Your task to perform on an android device: Empty the shopping cart on costco. Search for bose soundlink mini on costco, select the first entry, and add it to the cart. Image 0: 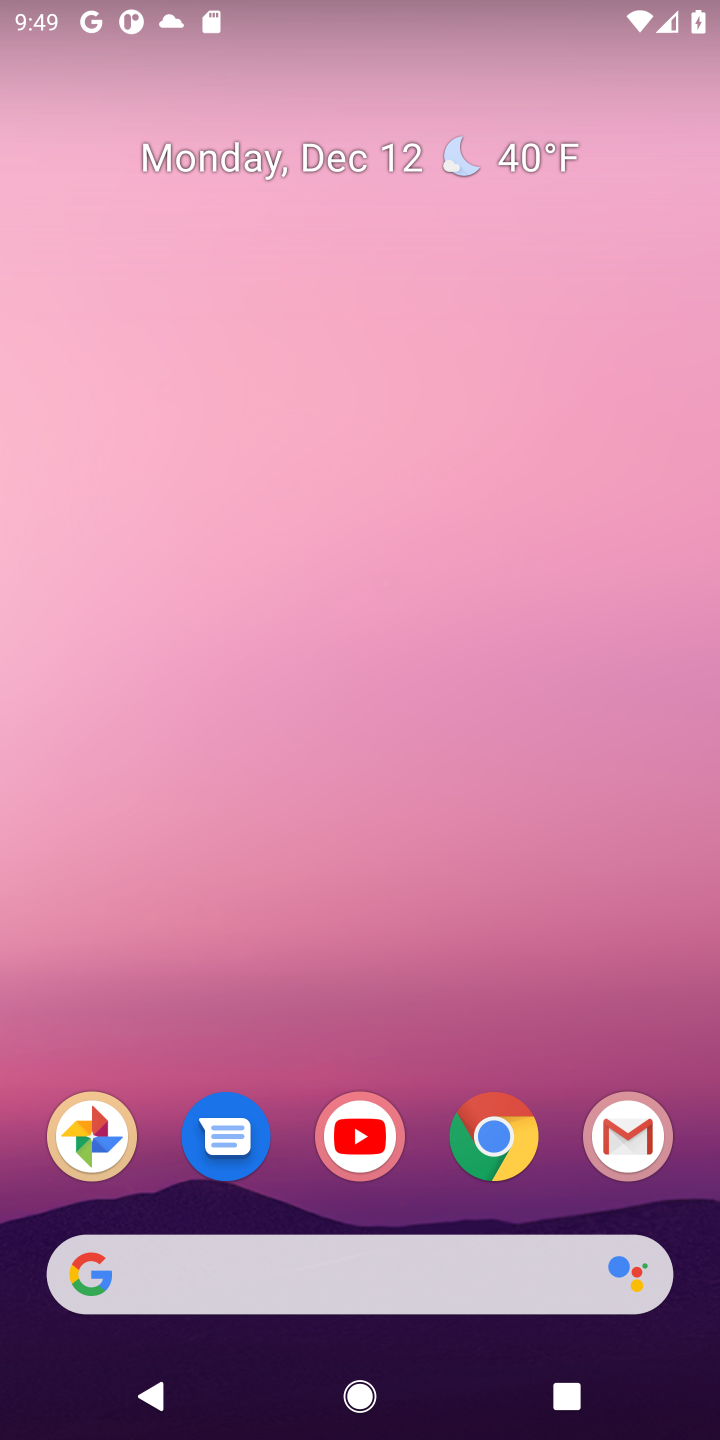
Step 0: click (506, 1144)
Your task to perform on an android device: Empty the shopping cart on costco. Search for bose soundlink mini on costco, select the first entry, and add it to the cart. Image 1: 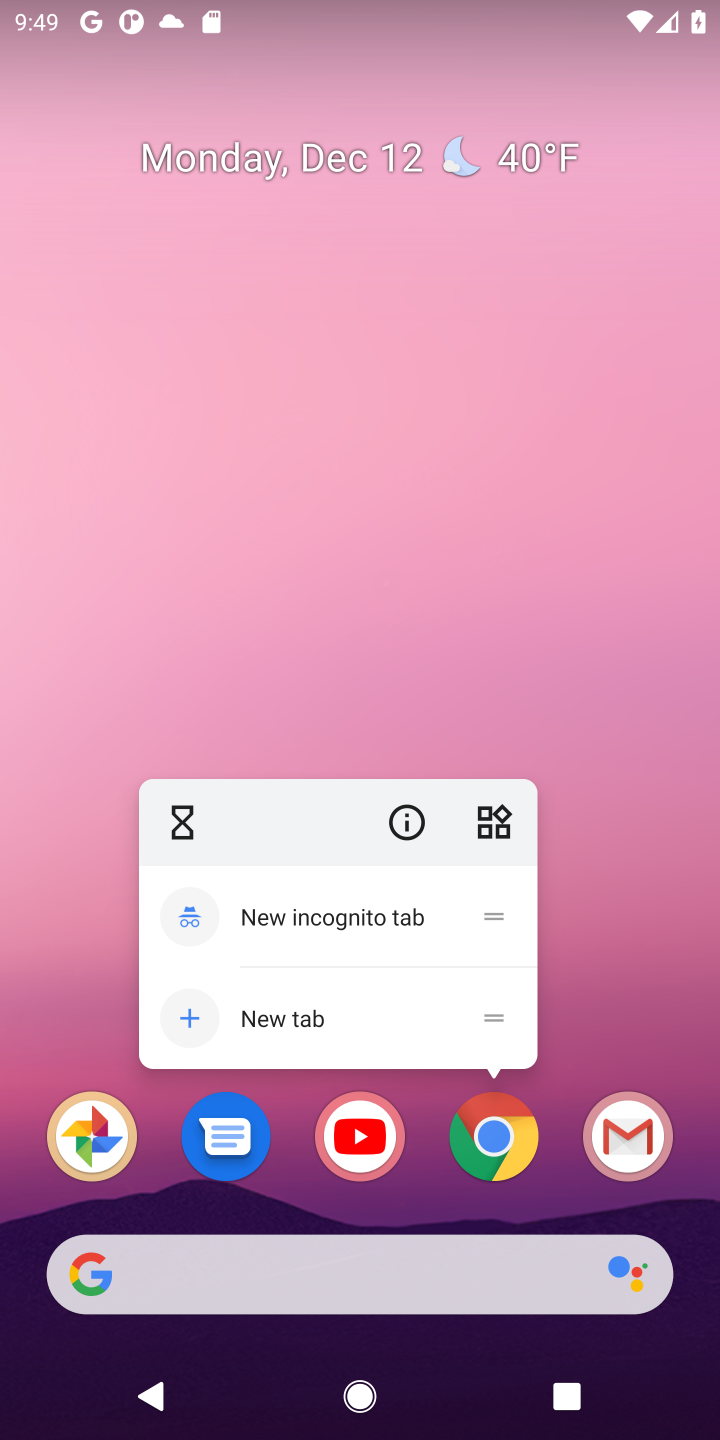
Step 1: click (506, 1144)
Your task to perform on an android device: Empty the shopping cart on costco. Search for bose soundlink mini on costco, select the first entry, and add it to the cart. Image 2: 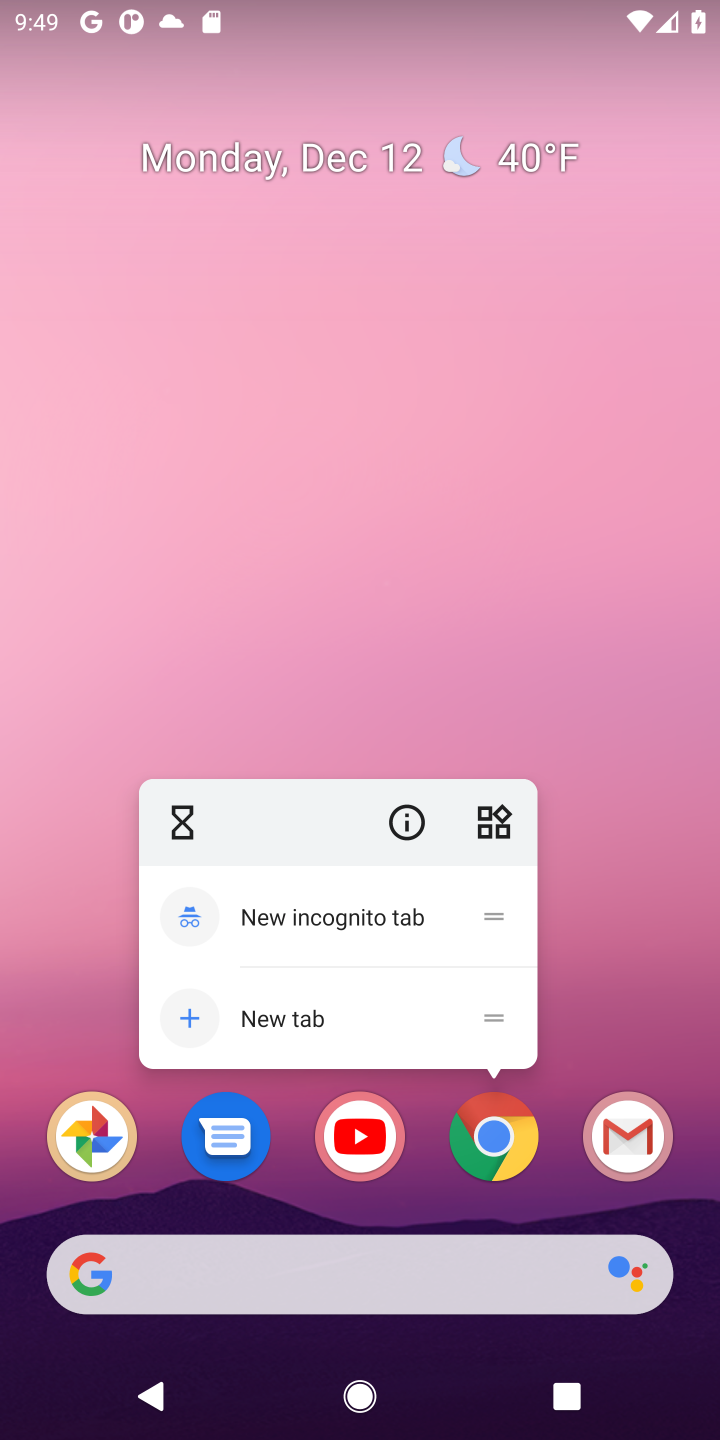
Step 2: click (503, 1136)
Your task to perform on an android device: Empty the shopping cart on costco. Search for bose soundlink mini on costco, select the first entry, and add it to the cart. Image 3: 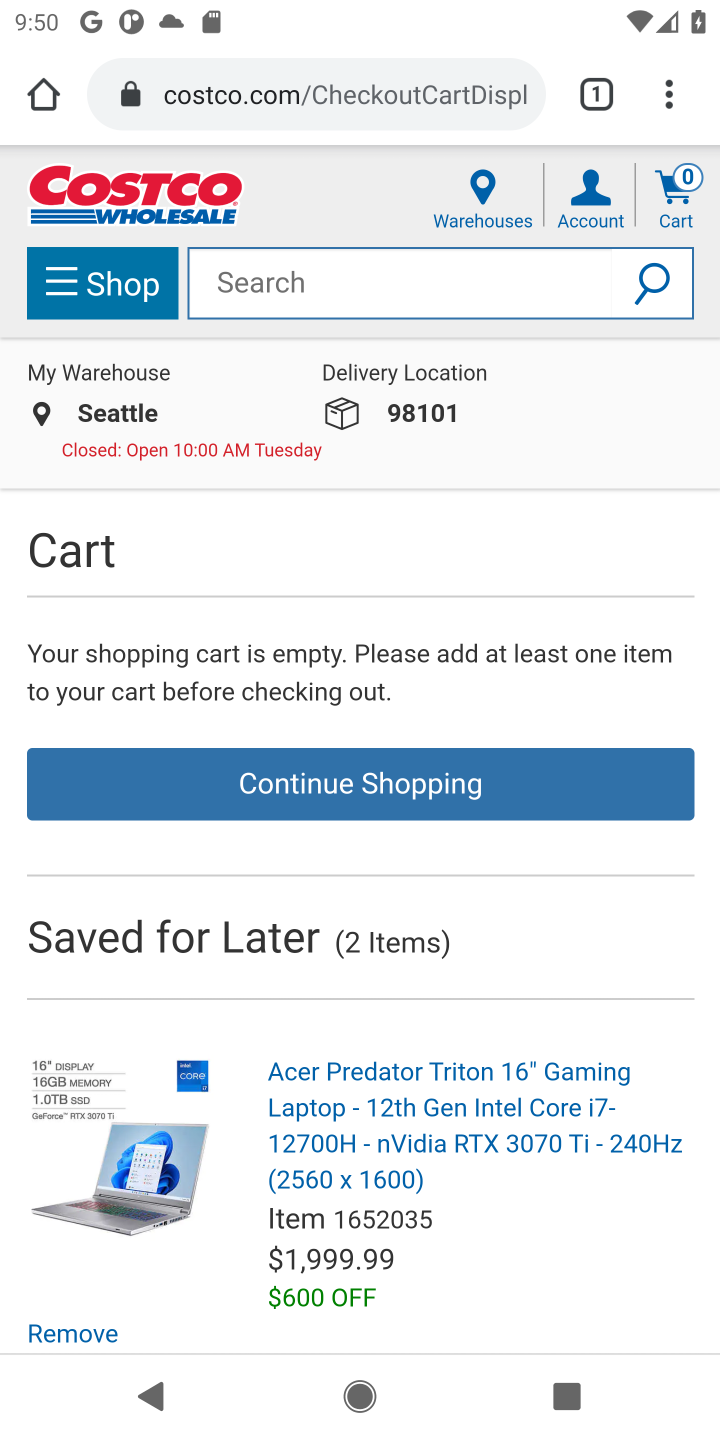
Step 3: click (674, 189)
Your task to perform on an android device: Empty the shopping cart on costco. Search for bose soundlink mini on costco, select the first entry, and add it to the cart. Image 4: 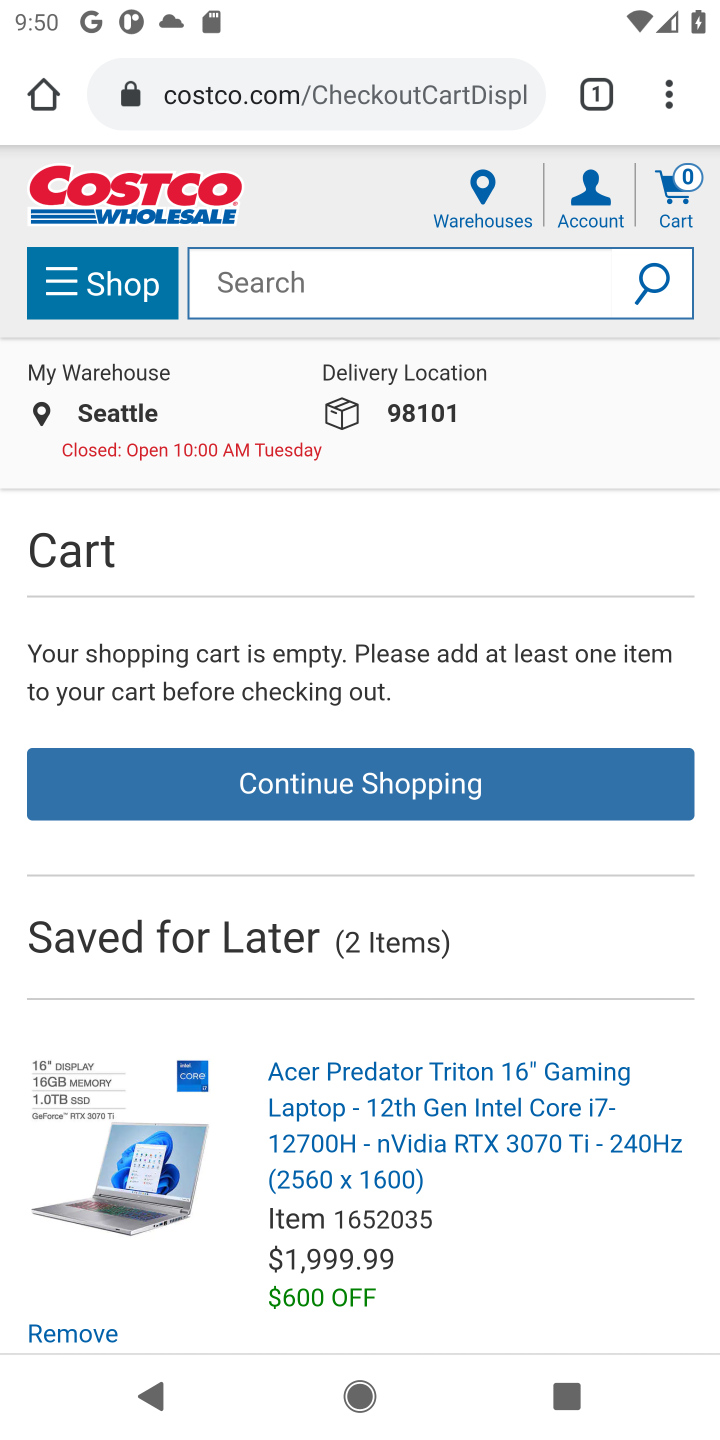
Step 4: click (372, 273)
Your task to perform on an android device: Empty the shopping cart on costco. Search for bose soundlink mini on costco, select the first entry, and add it to the cart. Image 5: 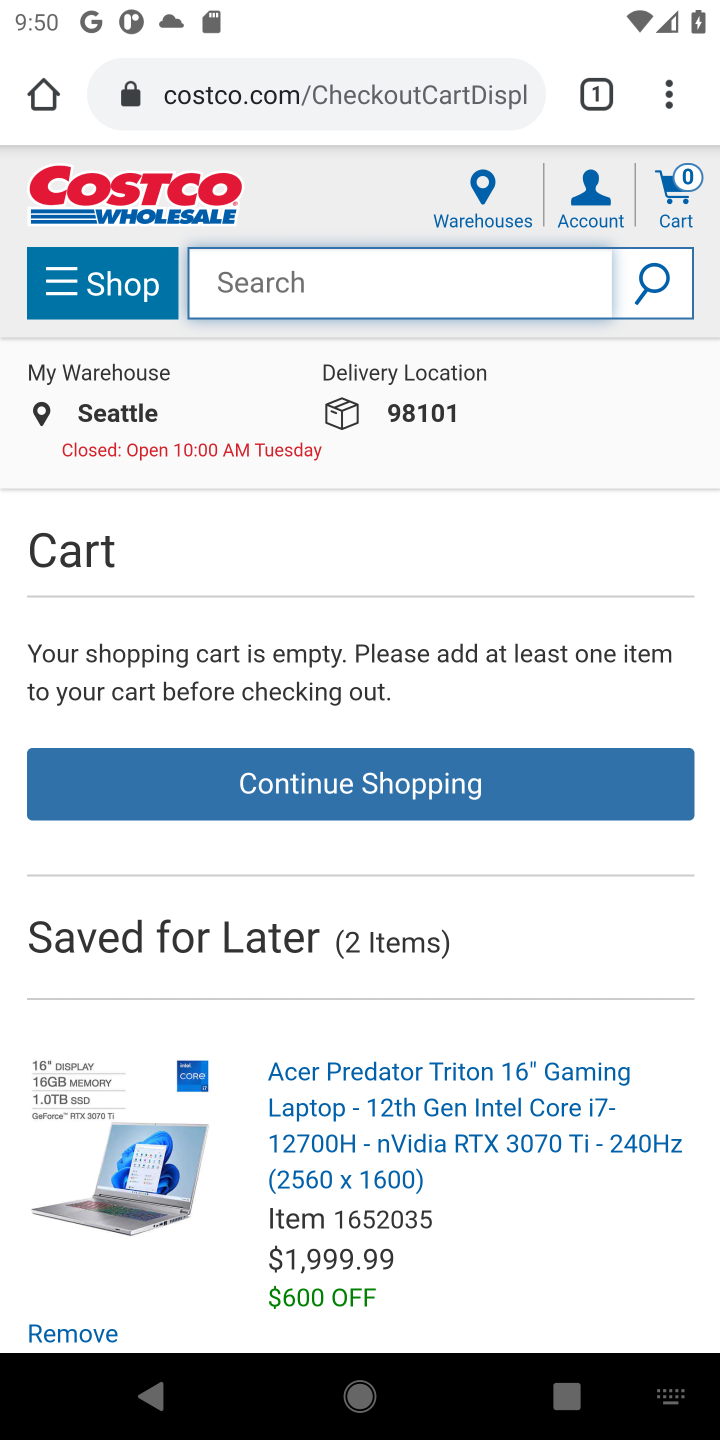
Step 5: type "bose soundlink mini"
Your task to perform on an android device: Empty the shopping cart on costco. Search for bose soundlink mini on costco, select the first entry, and add it to the cart. Image 6: 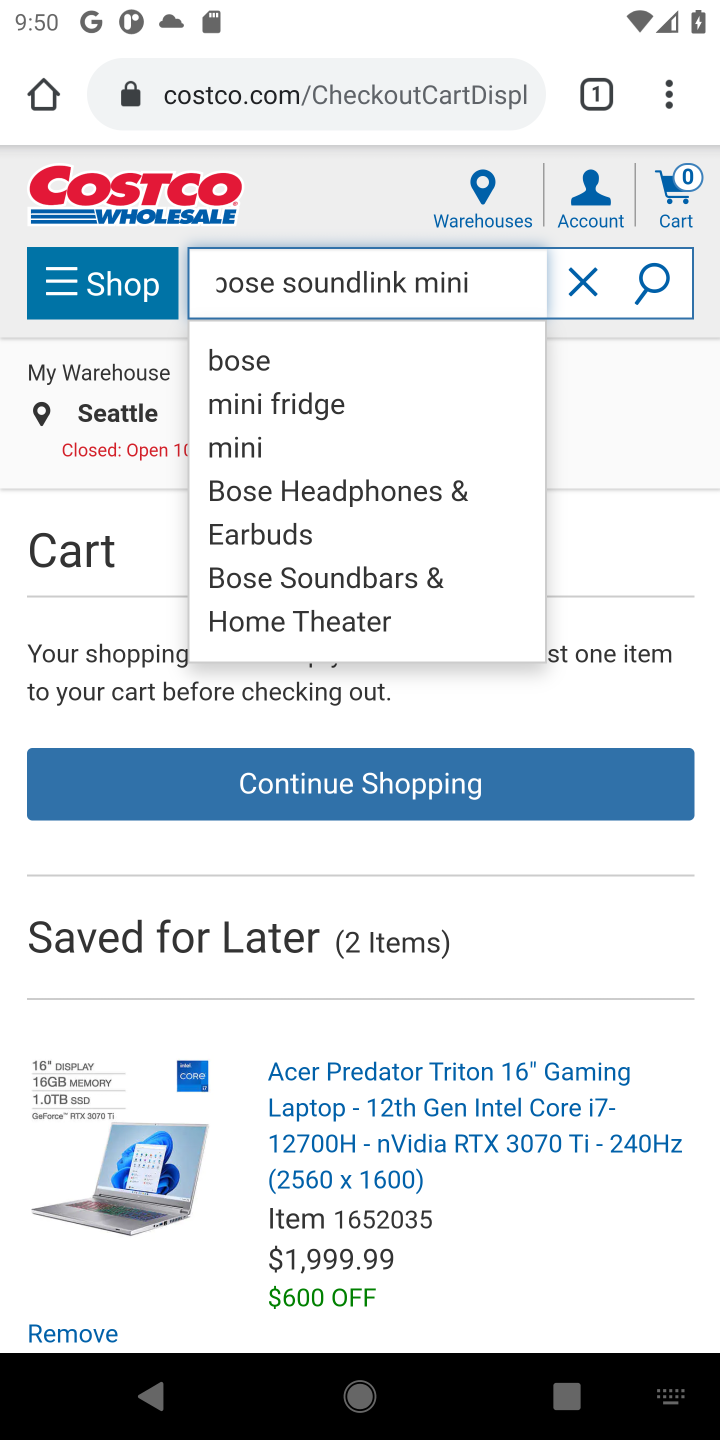
Step 6: click (647, 279)
Your task to perform on an android device: Empty the shopping cart on costco. Search for bose soundlink mini on costco, select the first entry, and add it to the cart. Image 7: 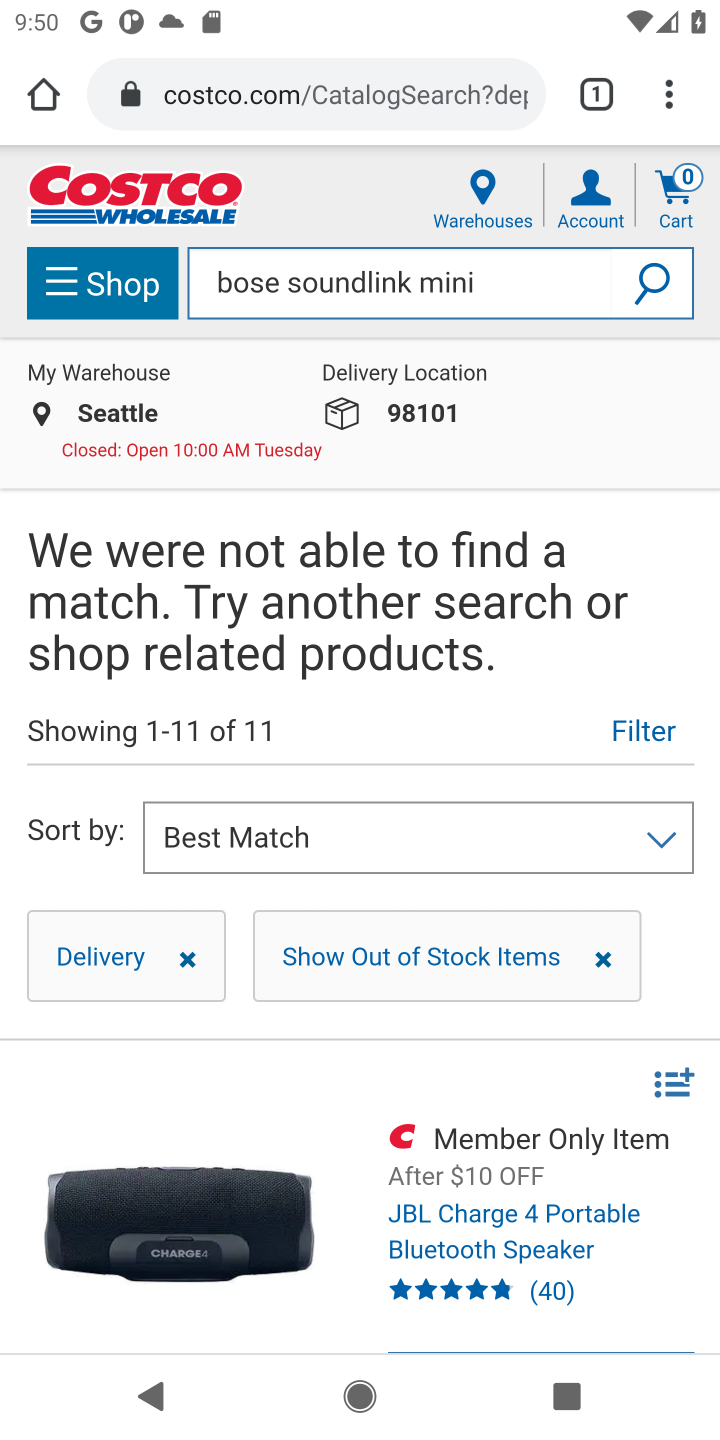
Step 7: task complete